Your task to perform on an android device: What's on my calendar tomorrow? Image 0: 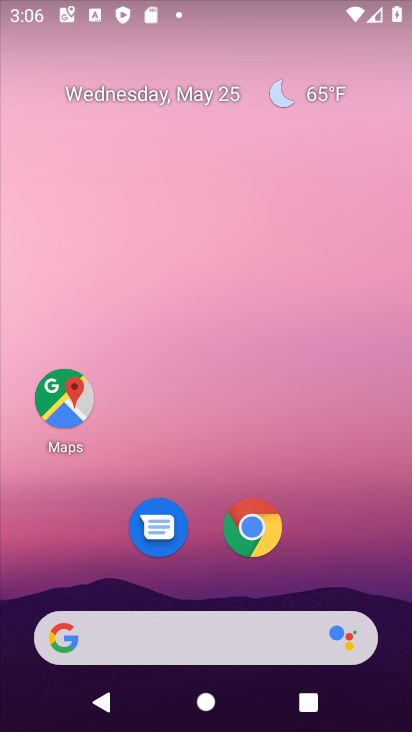
Step 0: drag from (233, 669) to (240, 40)
Your task to perform on an android device: What's on my calendar tomorrow? Image 1: 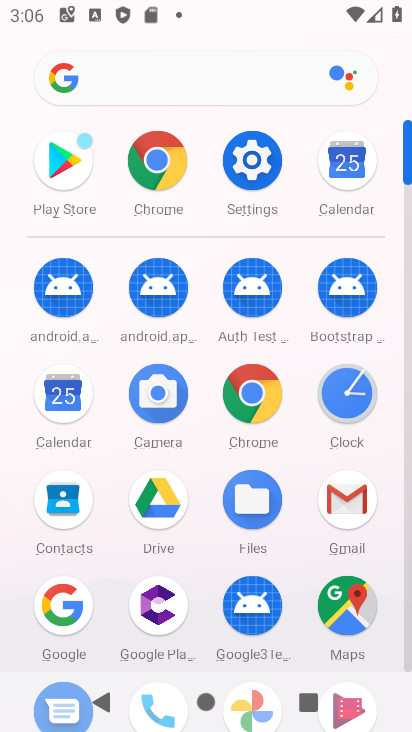
Step 1: click (62, 403)
Your task to perform on an android device: What's on my calendar tomorrow? Image 2: 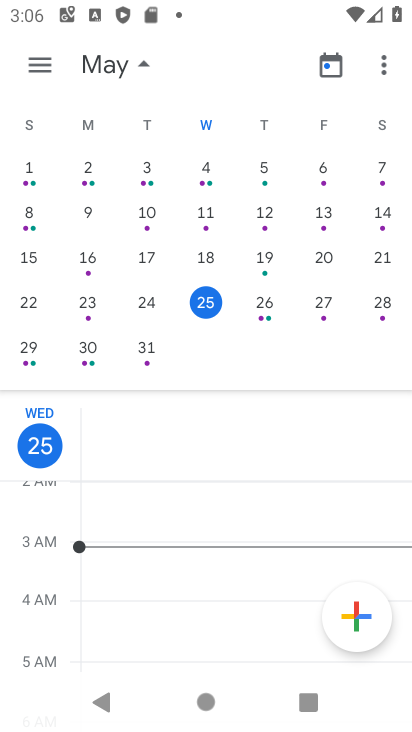
Step 2: click (269, 306)
Your task to perform on an android device: What's on my calendar tomorrow? Image 3: 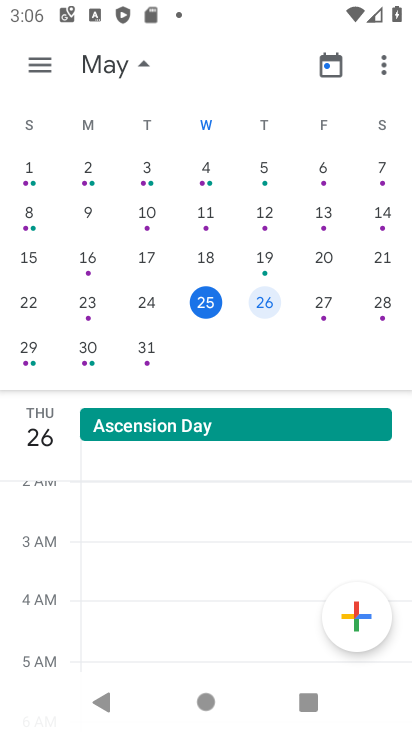
Step 3: task complete